Your task to perform on an android device: check out phone information Image 0: 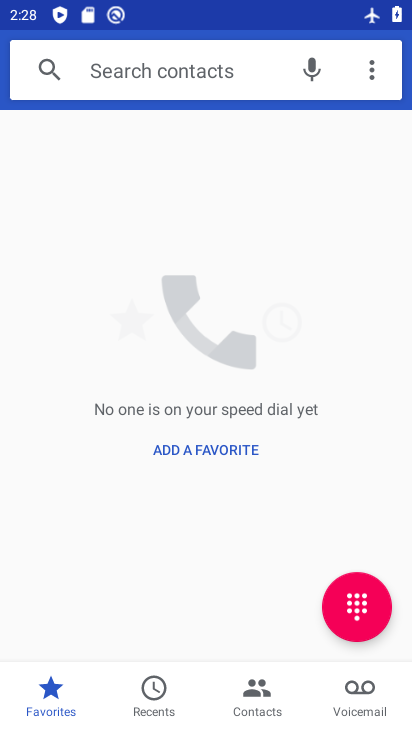
Step 0: press home button
Your task to perform on an android device: check out phone information Image 1: 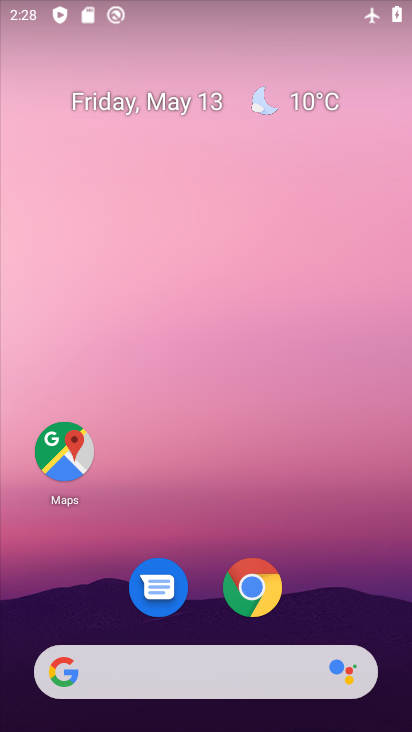
Step 1: drag from (307, 611) to (358, 22)
Your task to perform on an android device: check out phone information Image 2: 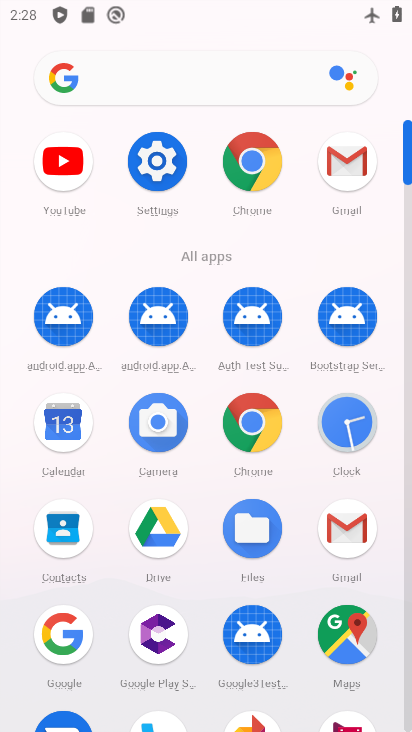
Step 2: click (158, 166)
Your task to perform on an android device: check out phone information Image 3: 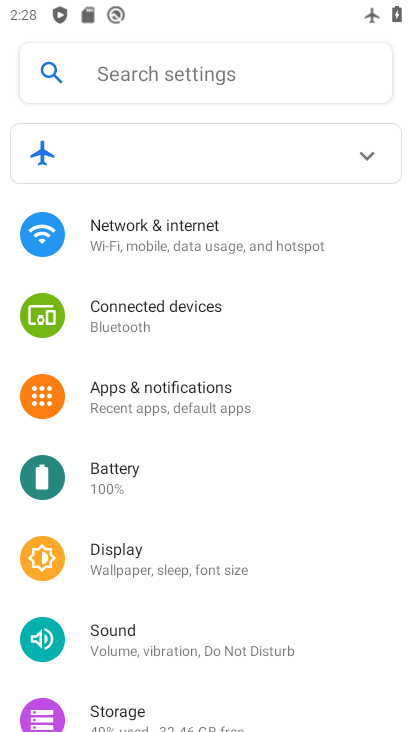
Step 3: drag from (165, 522) to (221, 142)
Your task to perform on an android device: check out phone information Image 4: 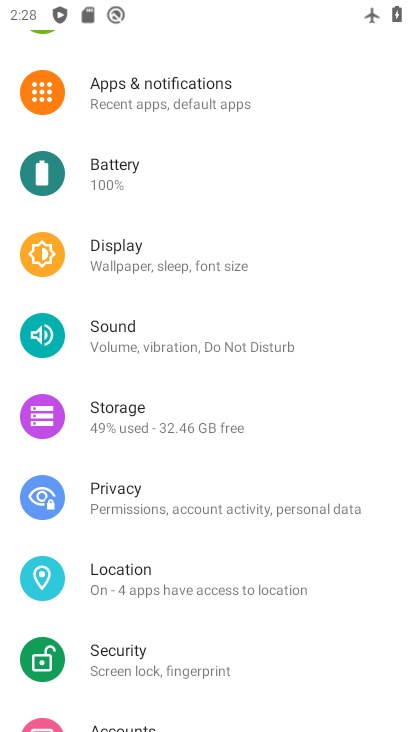
Step 4: drag from (147, 670) to (151, 177)
Your task to perform on an android device: check out phone information Image 5: 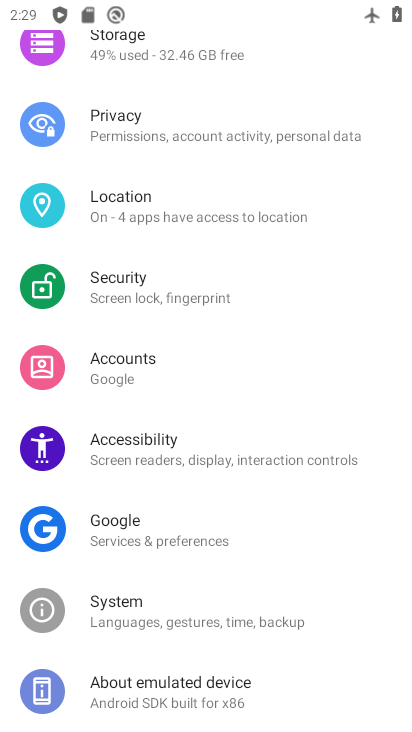
Step 5: drag from (213, 629) to (245, 182)
Your task to perform on an android device: check out phone information Image 6: 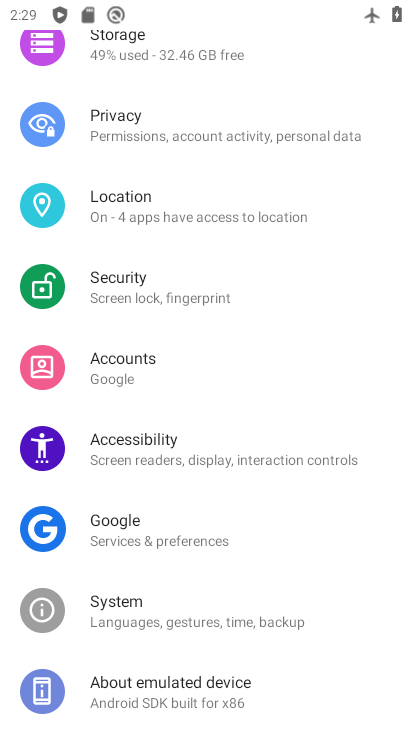
Step 6: click (142, 685)
Your task to perform on an android device: check out phone information Image 7: 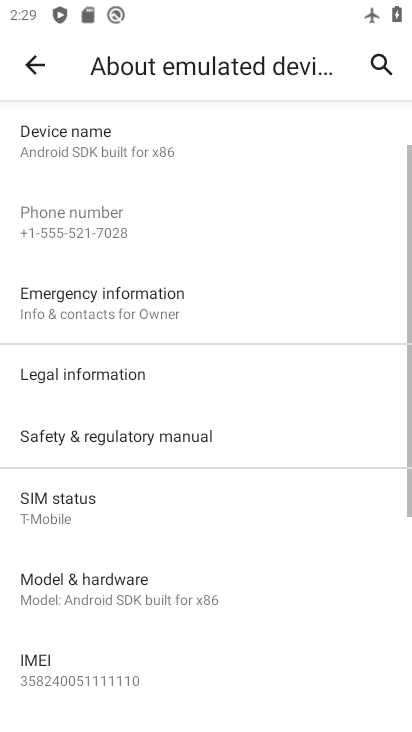
Step 7: task complete